Your task to perform on an android device: turn off javascript in the chrome app Image 0: 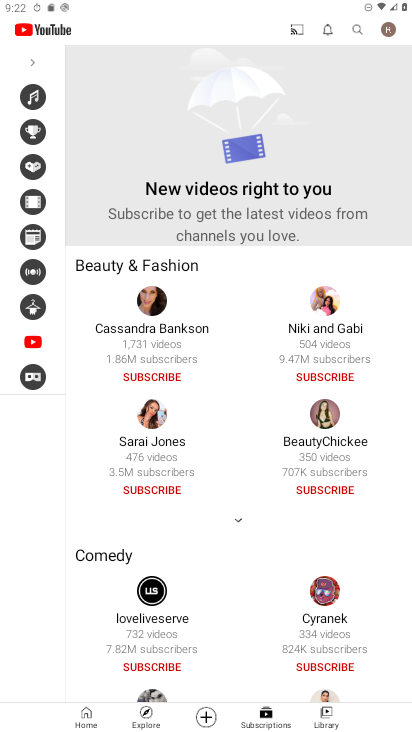
Step 0: press home button
Your task to perform on an android device: turn off javascript in the chrome app Image 1: 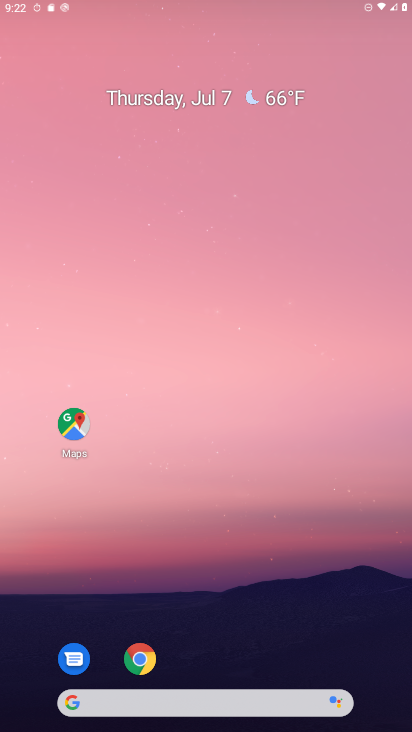
Step 1: drag from (370, 694) to (294, 185)
Your task to perform on an android device: turn off javascript in the chrome app Image 2: 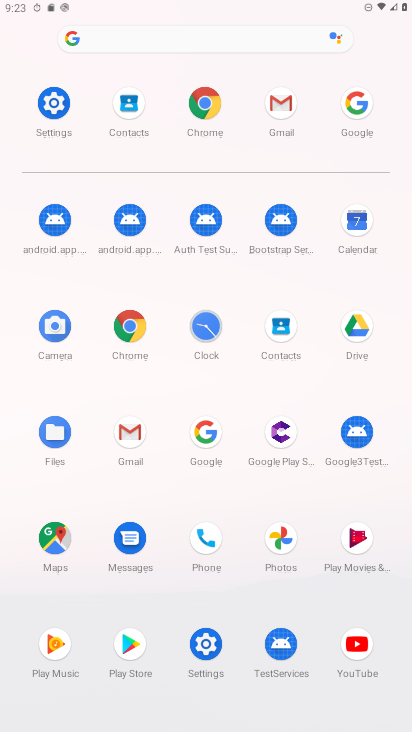
Step 2: click (123, 339)
Your task to perform on an android device: turn off javascript in the chrome app Image 3: 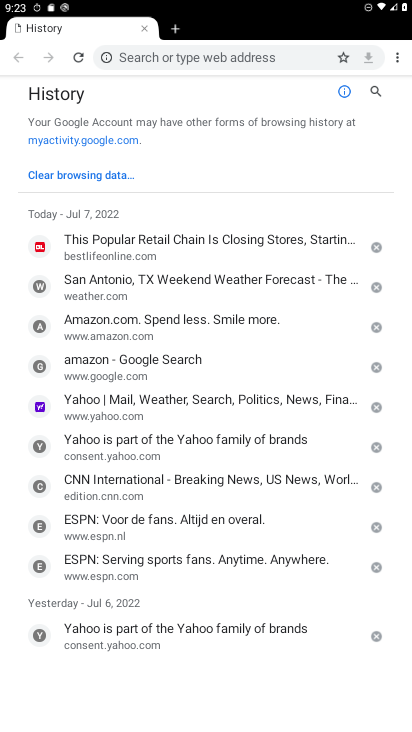
Step 3: click (394, 59)
Your task to perform on an android device: turn off javascript in the chrome app Image 4: 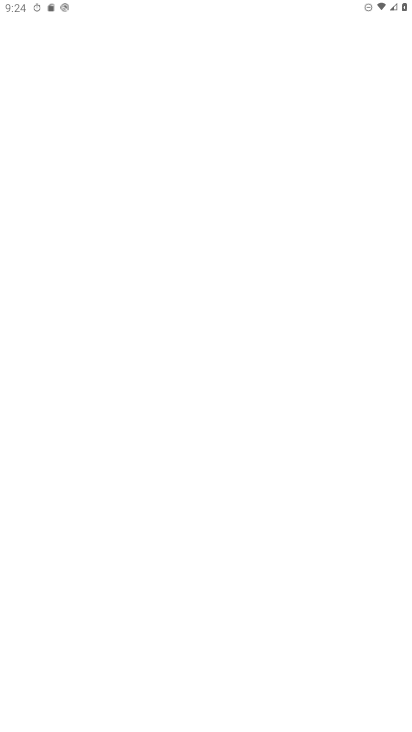
Step 4: task complete